Your task to perform on an android device: open app "Yahoo Mail" (install if not already installed) and go to login screen Image 0: 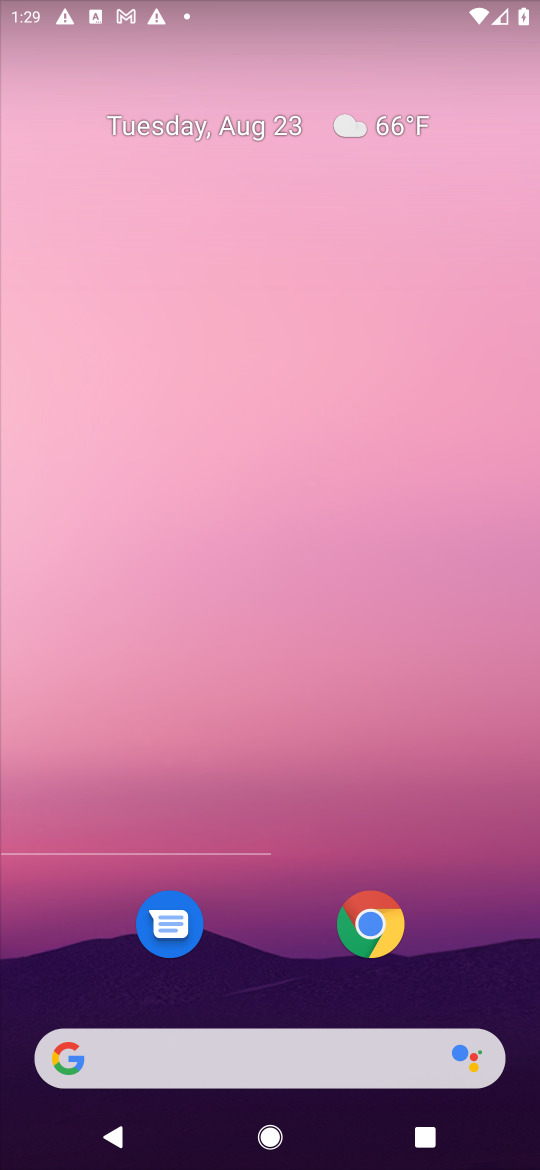
Step 0: press home button
Your task to perform on an android device: open app "Yahoo Mail" (install if not already installed) and go to login screen Image 1: 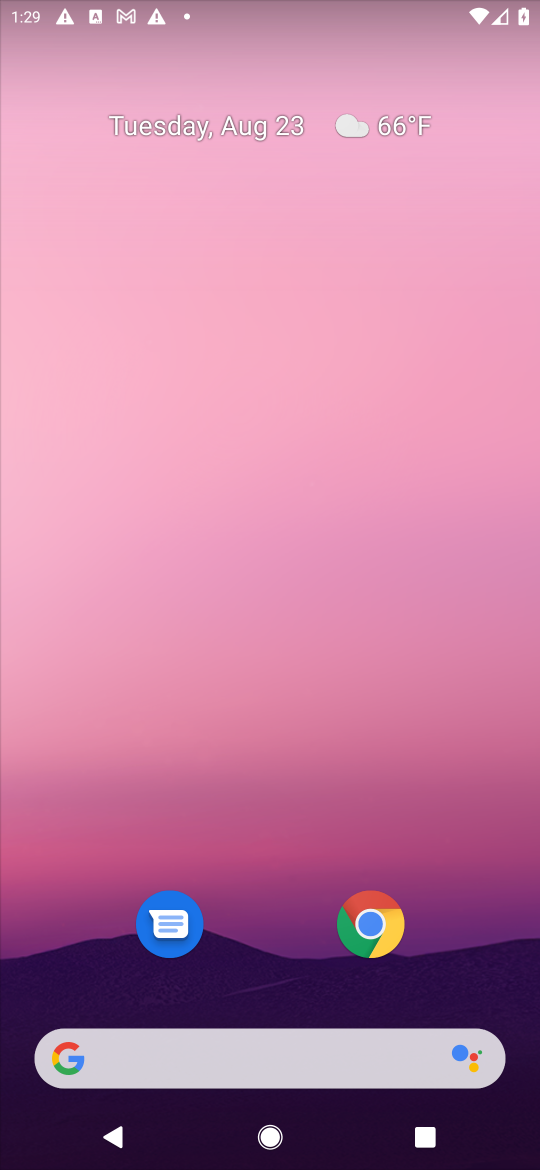
Step 1: drag from (477, 927) to (469, 106)
Your task to perform on an android device: open app "Yahoo Mail" (install if not already installed) and go to login screen Image 2: 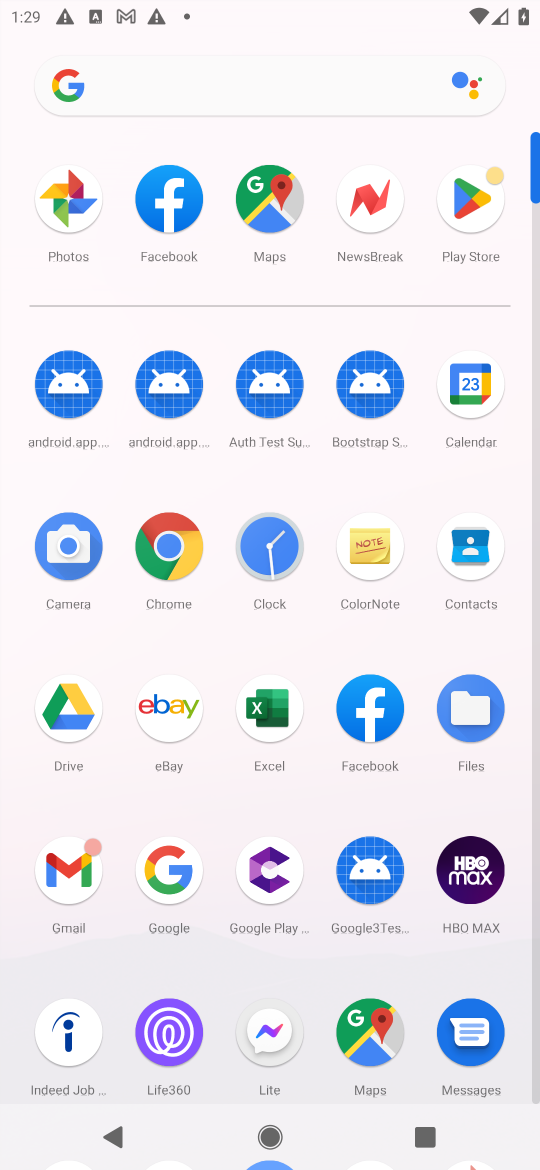
Step 2: click (468, 199)
Your task to perform on an android device: open app "Yahoo Mail" (install if not already installed) and go to login screen Image 3: 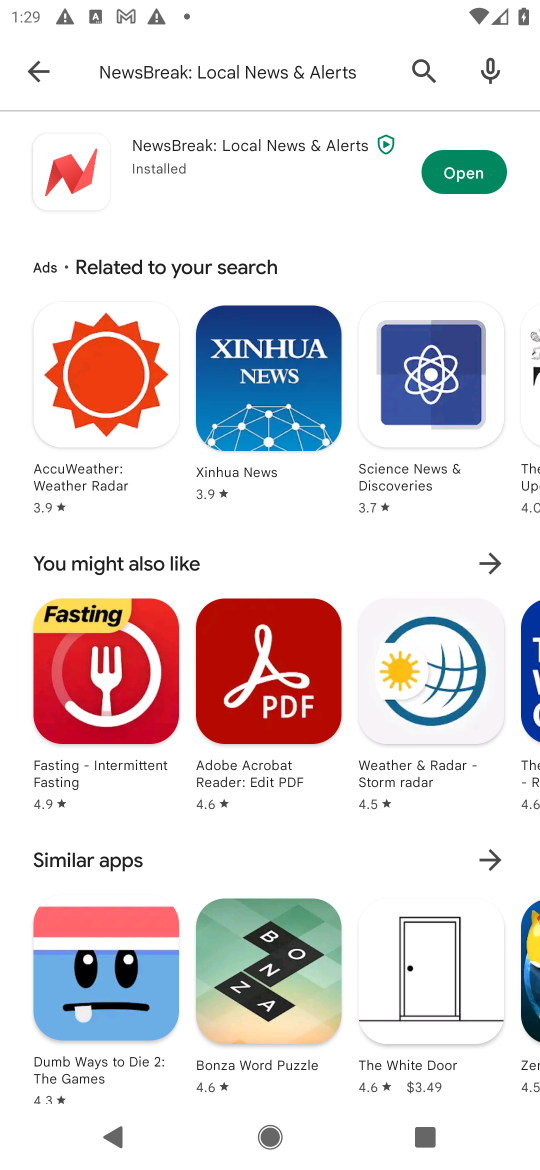
Step 3: press back button
Your task to perform on an android device: open app "Yahoo Mail" (install if not already installed) and go to login screen Image 4: 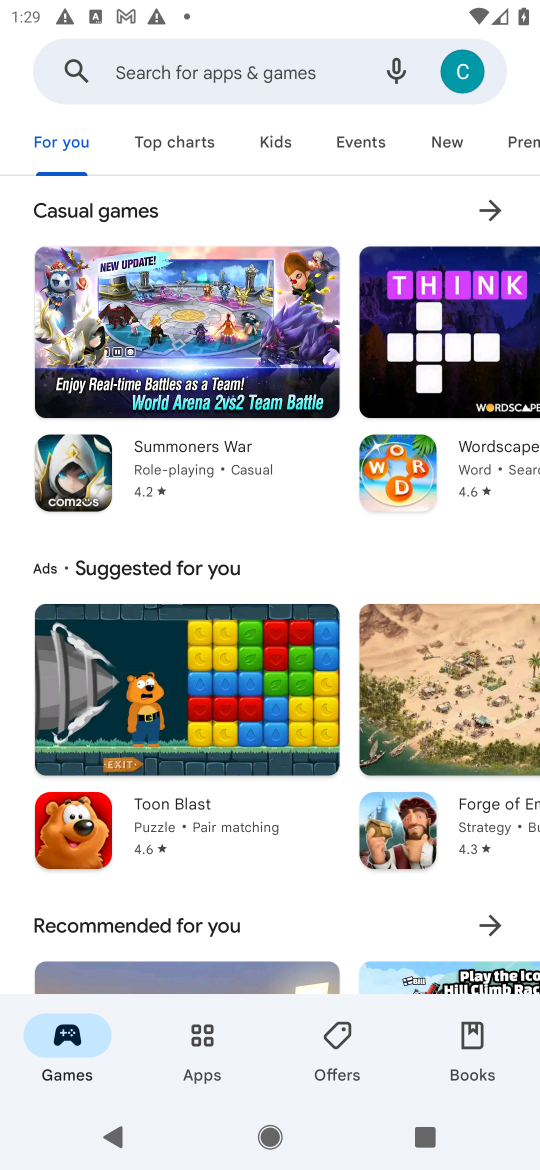
Step 4: click (201, 69)
Your task to perform on an android device: open app "Yahoo Mail" (install if not already installed) and go to login screen Image 5: 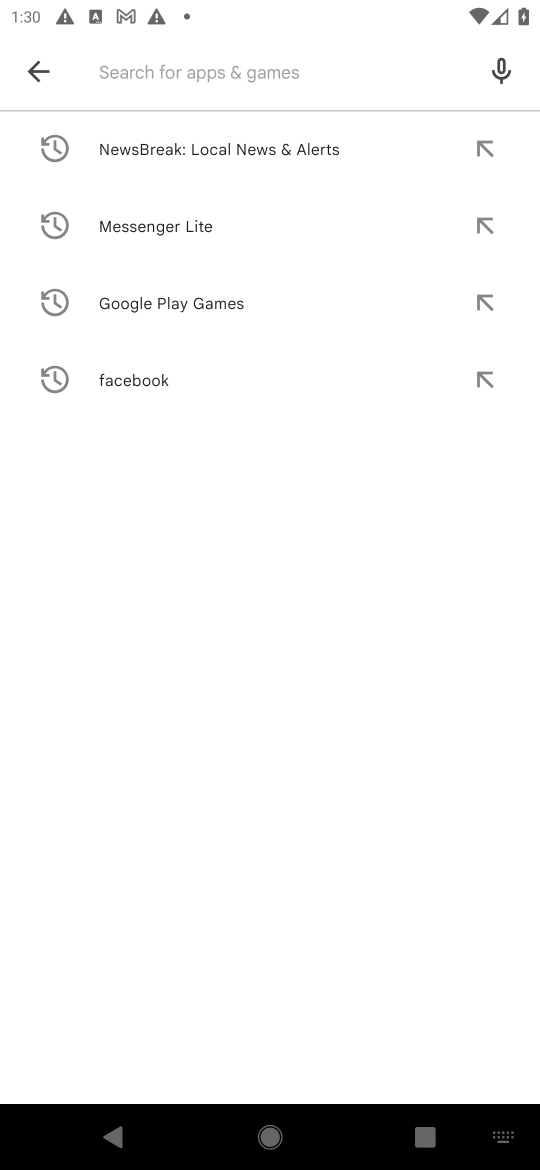
Step 5: type "Yahoo Mail"
Your task to perform on an android device: open app "Yahoo Mail" (install if not already installed) and go to login screen Image 6: 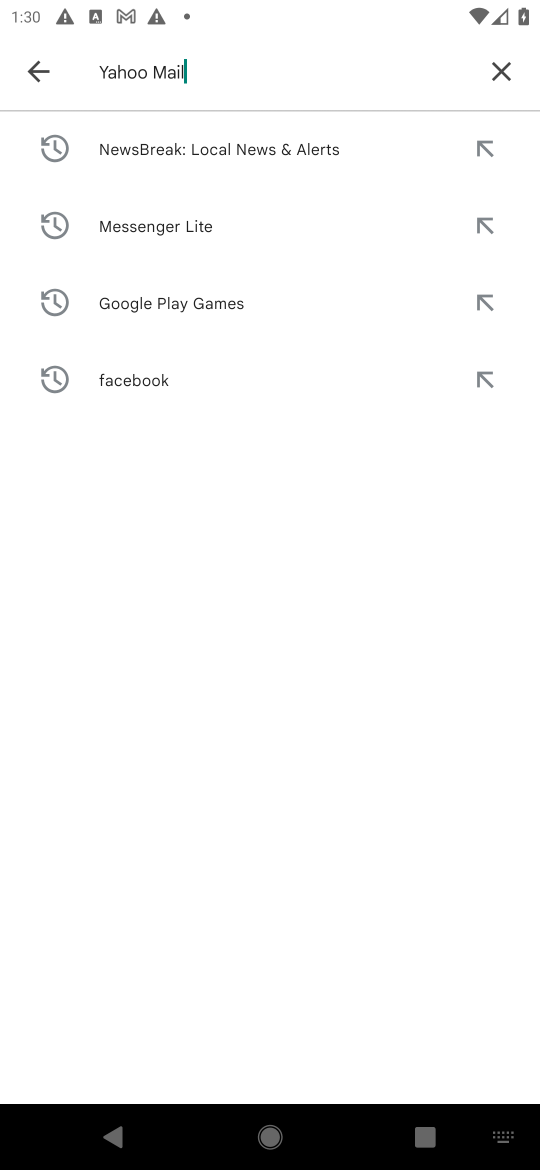
Step 6: press enter
Your task to perform on an android device: open app "Yahoo Mail" (install if not already installed) and go to login screen Image 7: 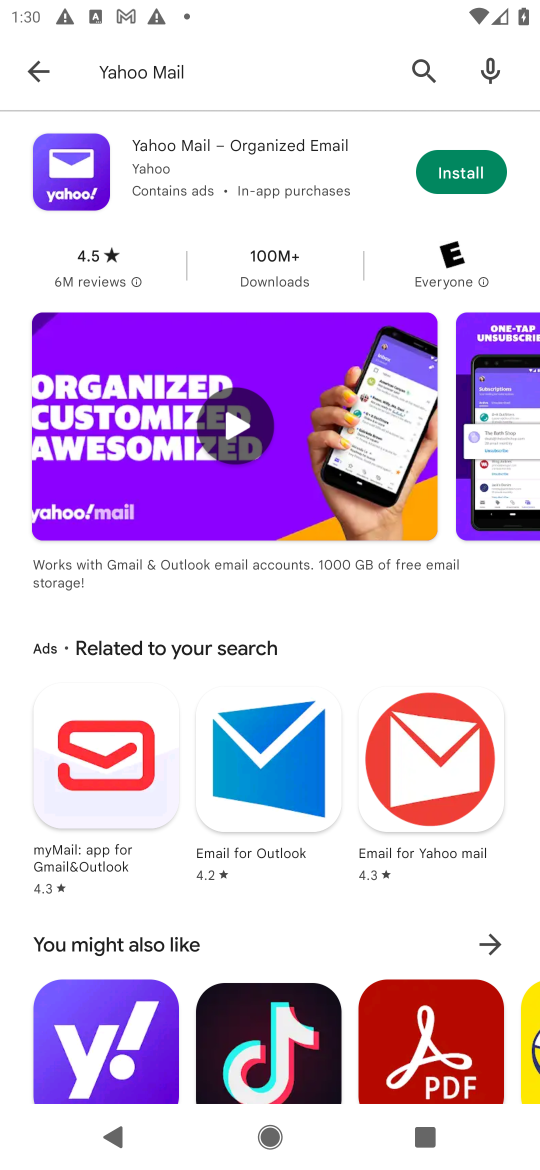
Step 7: click (468, 170)
Your task to perform on an android device: open app "Yahoo Mail" (install if not already installed) and go to login screen Image 8: 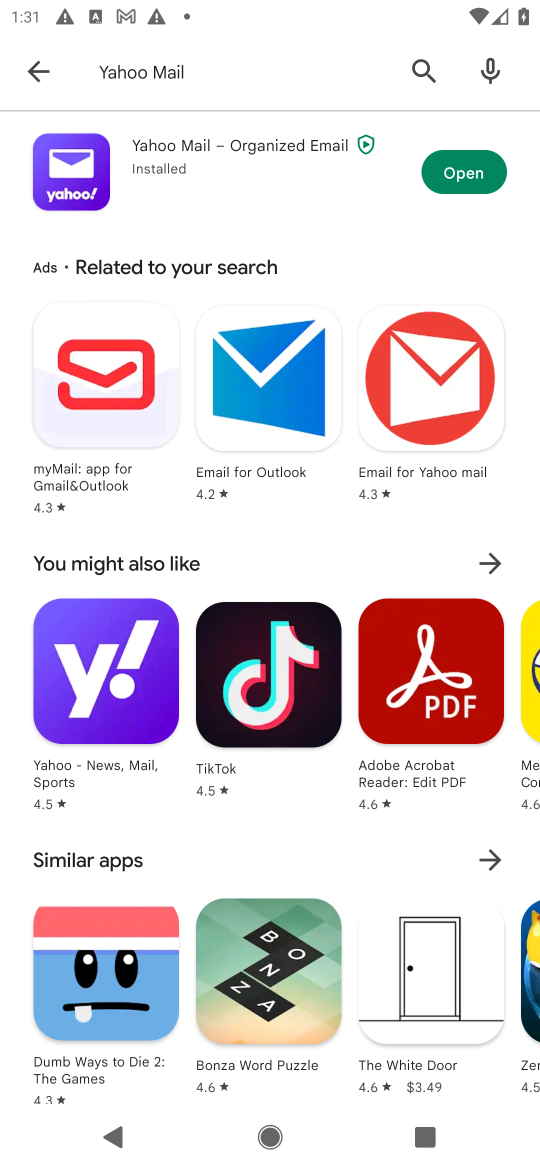
Step 8: click (470, 175)
Your task to perform on an android device: open app "Yahoo Mail" (install if not already installed) and go to login screen Image 9: 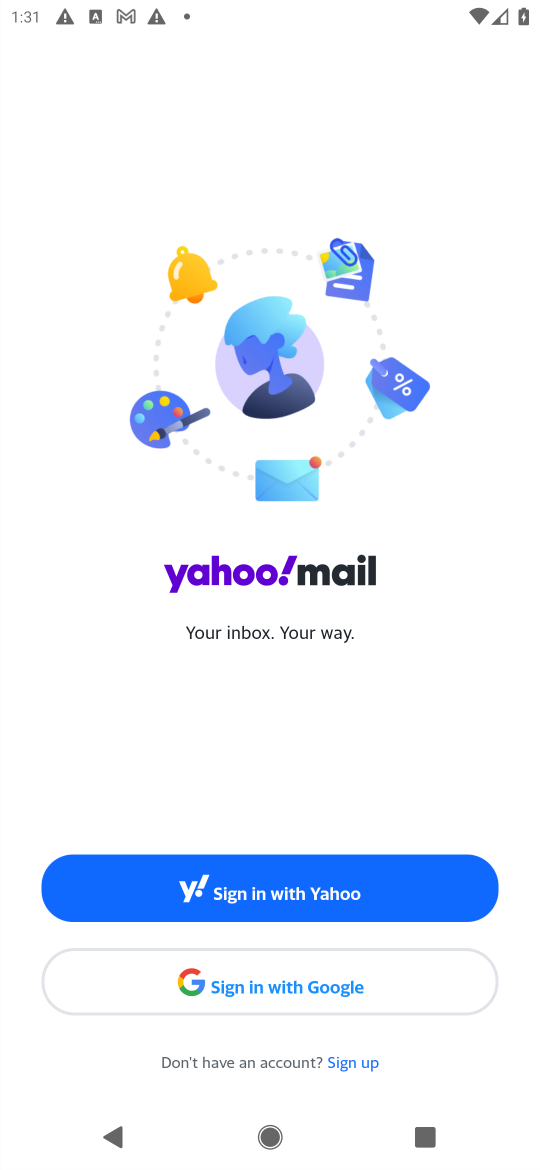
Step 9: task complete